Your task to perform on an android device: Do I have any events this weekend? Image 0: 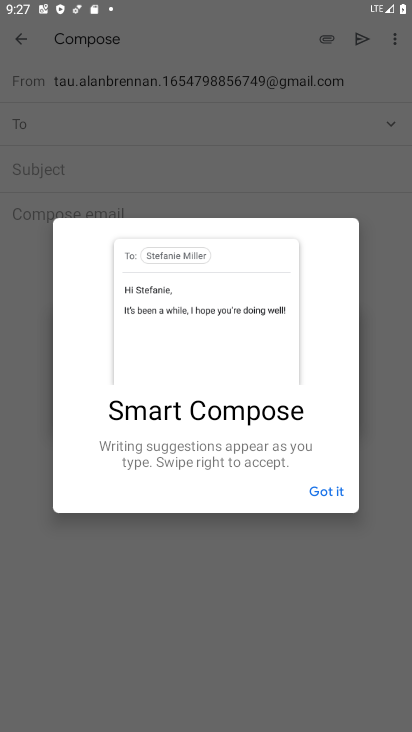
Step 0: press home button
Your task to perform on an android device: Do I have any events this weekend? Image 1: 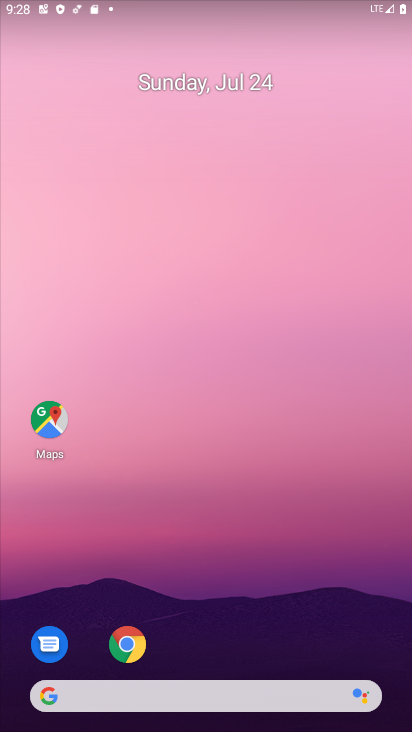
Step 1: drag from (89, 486) to (269, 124)
Your task to perform on an android device: Do I have any events this weekend? Image 2: 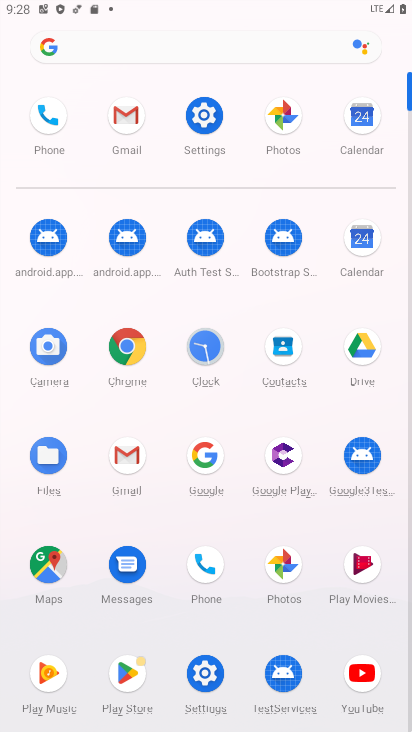
Step 2: click (349, 118)
Your task to perform on an android device: Do I have any events this weekend? Image 3: 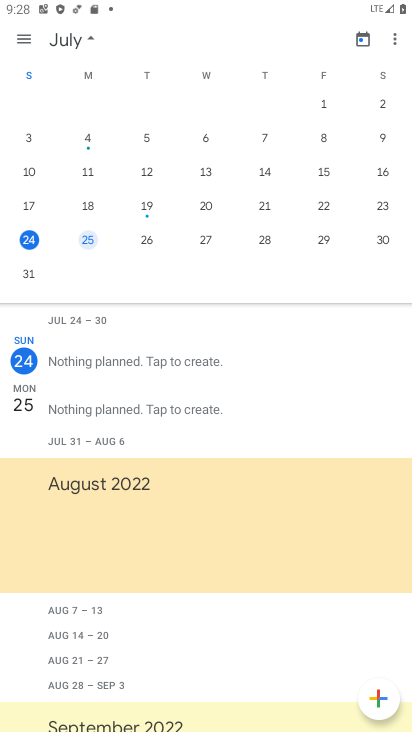
Step 3: click (387, 246)
Your task to perform on an android device: Do I have any events this weekend? Image 4: 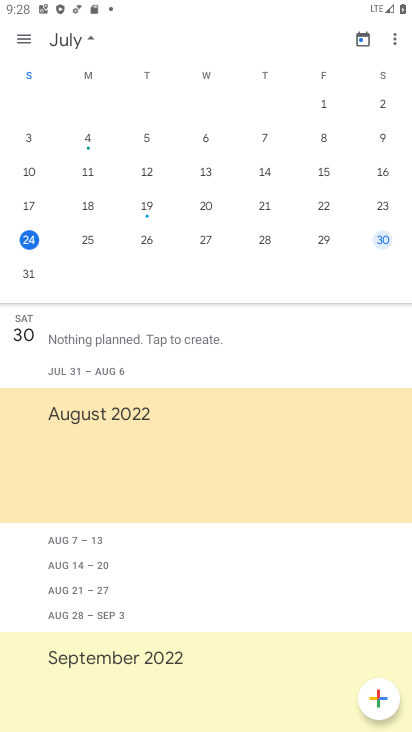
Step 4: click (29, 271)
Your task to perform on an android device: Do I have any events this weekend? Image 5: 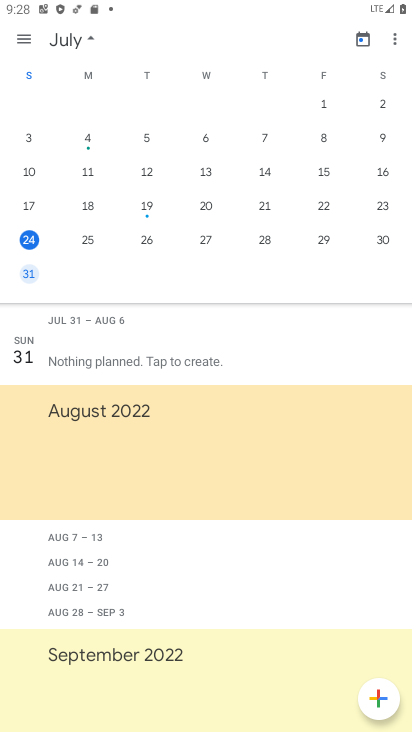
Step 5: task complete